Your task to perform on an android device: Clear the shopping cart on amazon.com. Search for "logitech g pro" on amazon.com, select the first entry, add it to the cart, then select checkout. Image 0: 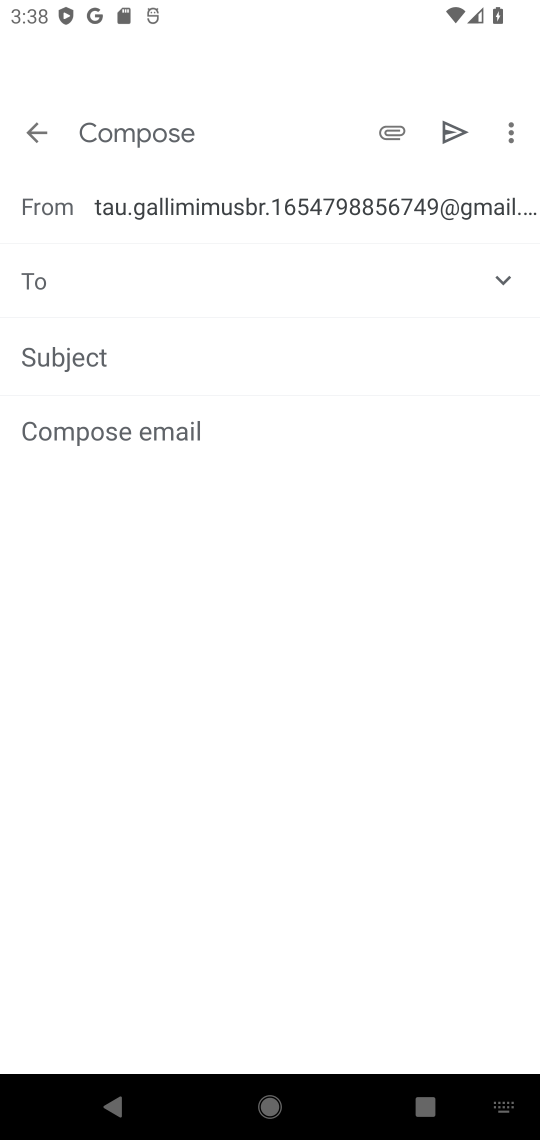
Step 0: press home button
Your task to perform on an android device: Clear the shopping cart on amazon.com. Search for "logitech g pro" on amazon.com, select the first entry, add it to the cart, then select checkout. Image 1: 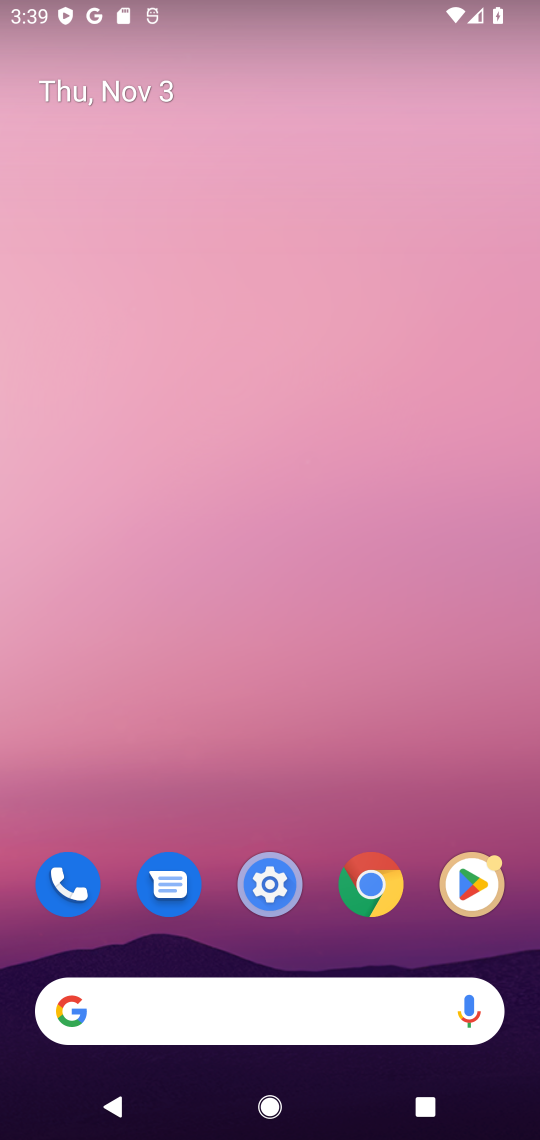
Step 1: click (109, 1009)
Your task to perform on an android device: Clear the shopping cart on amazon.com. Search for "logitech g pro" on amazon.com, select the first entry, add it to the cart, then select checkout. Image 2: 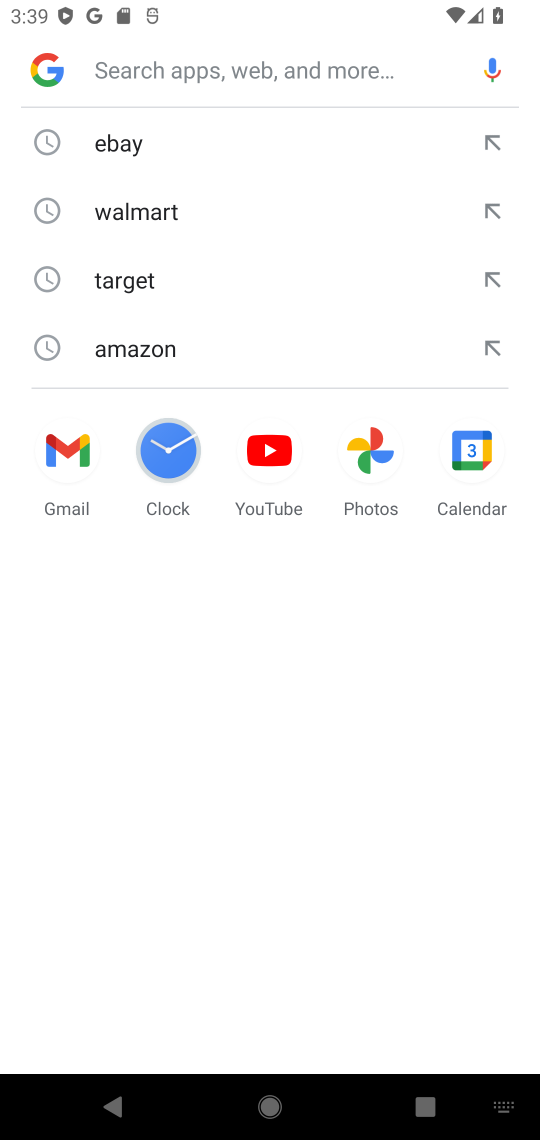
Step 2: type "amazon.com"
Your task to perform on an android device: Clear the shopping cart on amazon.com. Search for "logitech g pro" on amazon.com, select the first entry, add it to the cart, then select checkout. Image 3: 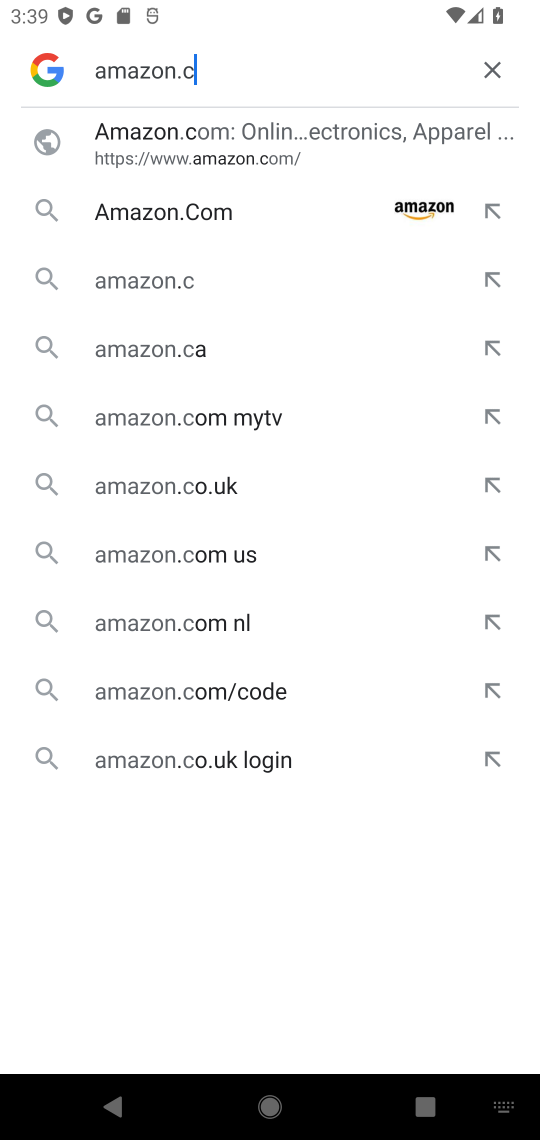
Step 3: press enter
Your task to perform on an android device: Clear the shopping cart on amazon.com. Search for "logitech g pro" on amazon.com, select the first entry, add it to the cart, then select checkout. Image 4: 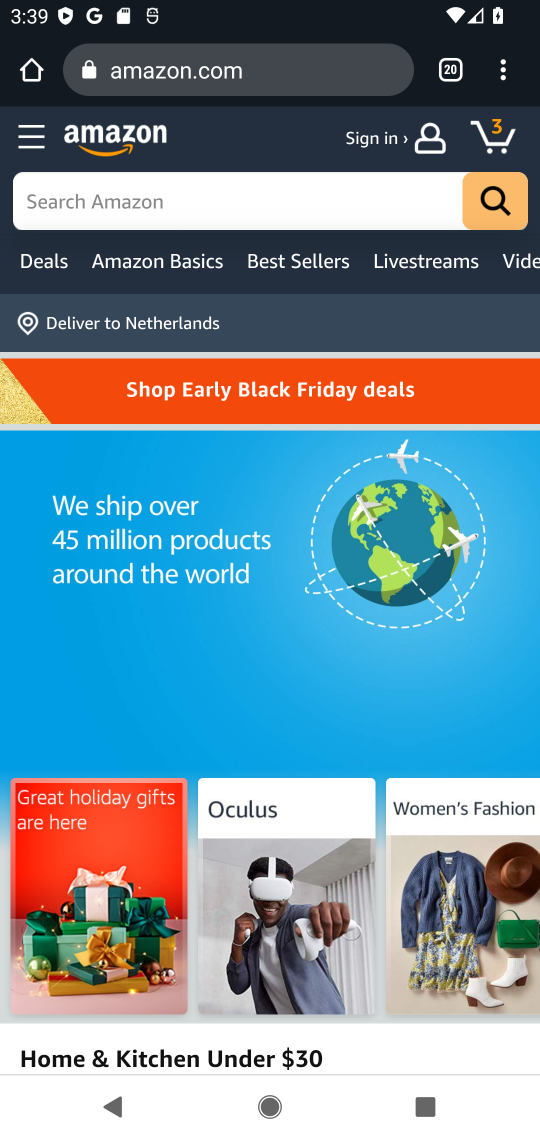
Step 4: click (485, 137)
Your task to perform on an android device: Clear the shopping cart on amazon.com. Search for "logitech g pro" on amazon.com, select the first entry, add it to the cart, then select checkout. Image 5: 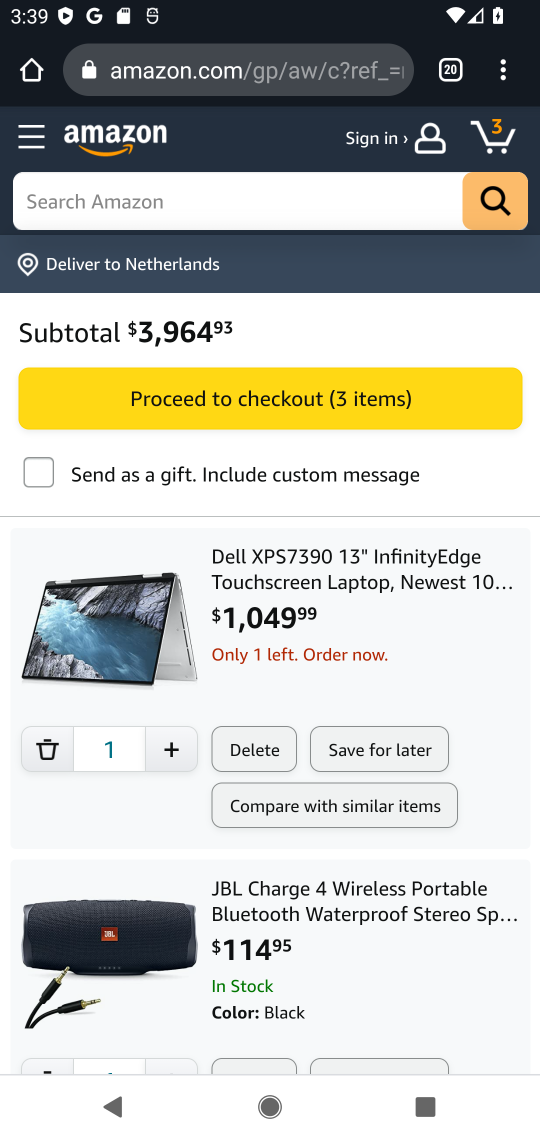
Step 5: click (39, 755)
Your task to perform on an android device: Clear the shopping cart on amazon.com. Search for "logitech g pro" on amazon.com, select the first entry, add it to the cart, then select checkout. Image 6: 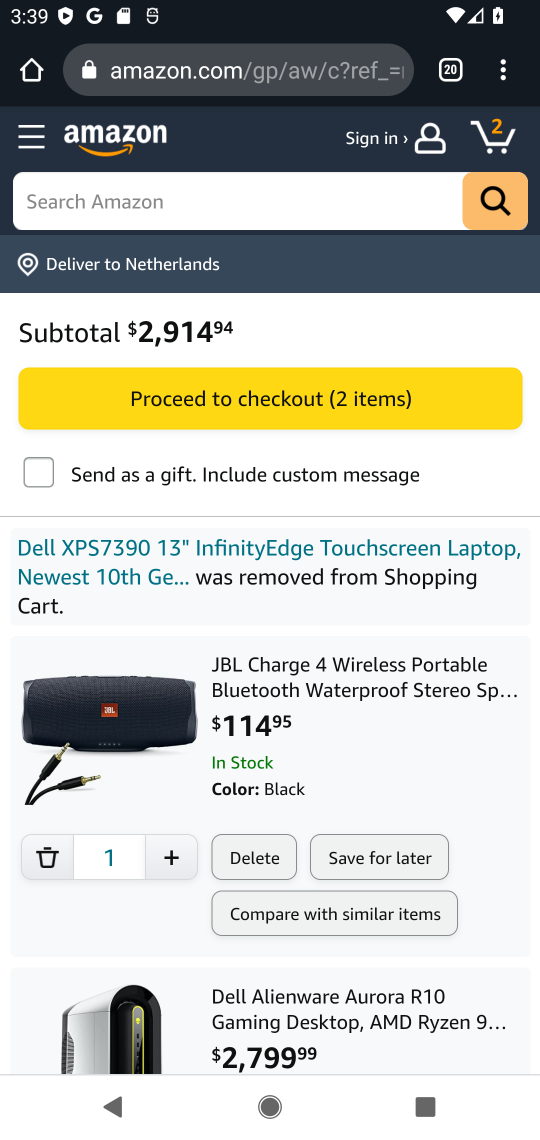
Step 6: click (44, 863)
Your task to perform on an android device: Clear the shopping cart on amazon.com. Search for "logitech g pro" on amazon.com, select the first entry, add it to the cart, then select checkout. Image 7: 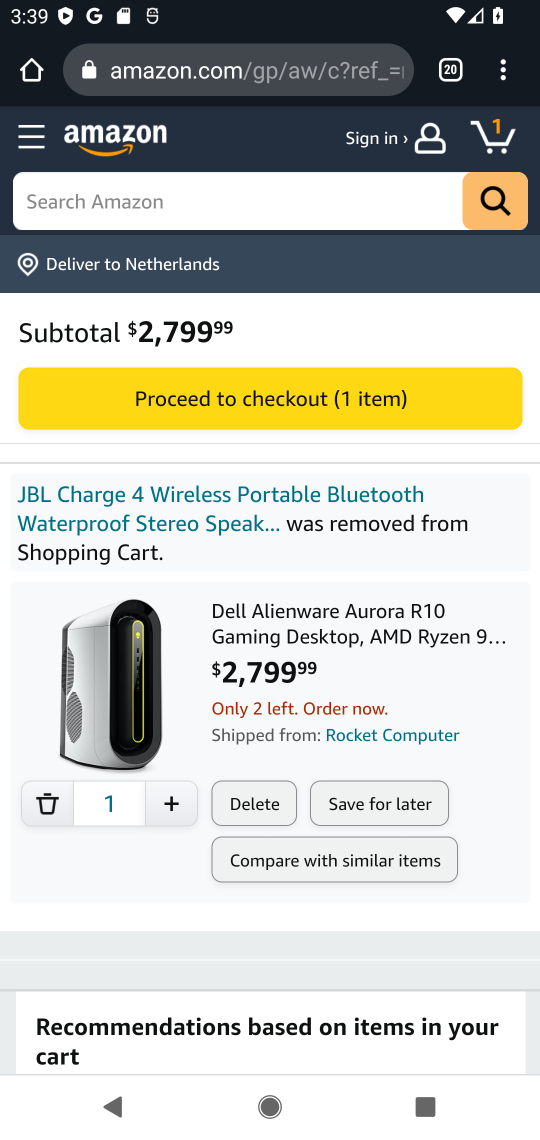
Step 7: click (46, 803)
Your task to perform on an android device: Clear the shopping cart on amazon.com. Search for "logitech g pro" on amazon.com, select the first entry, add it to the cart, then select checkout. Image 8: 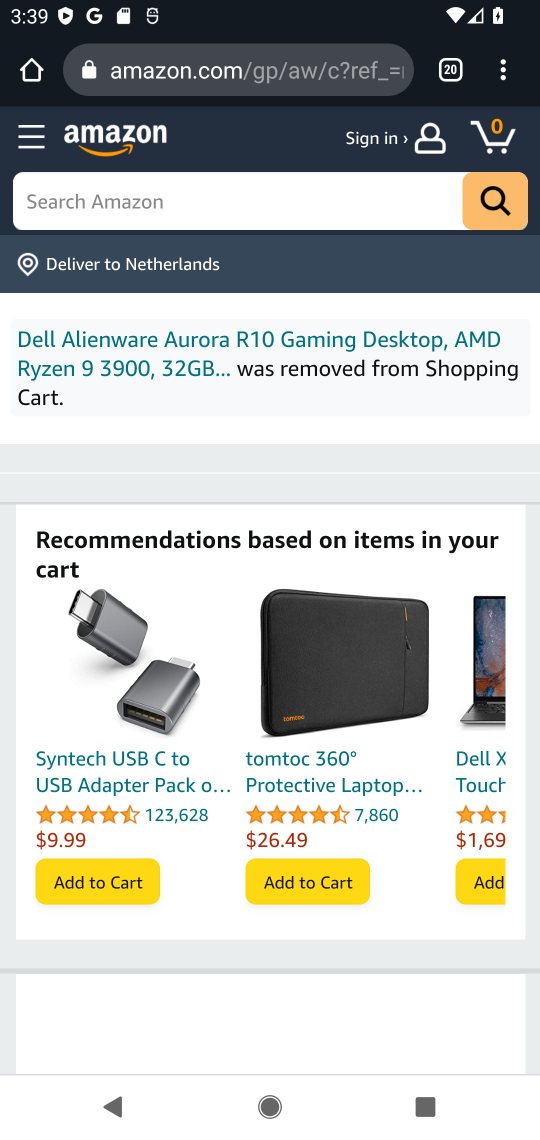
Step 8: click (169, 193)
Your task to perform on an android device: Clear the shopping cart on amazon.com. Search for "logitech g pro" on amazon.com, select the first entry, add it to the cart, then select checkout. Image 9: 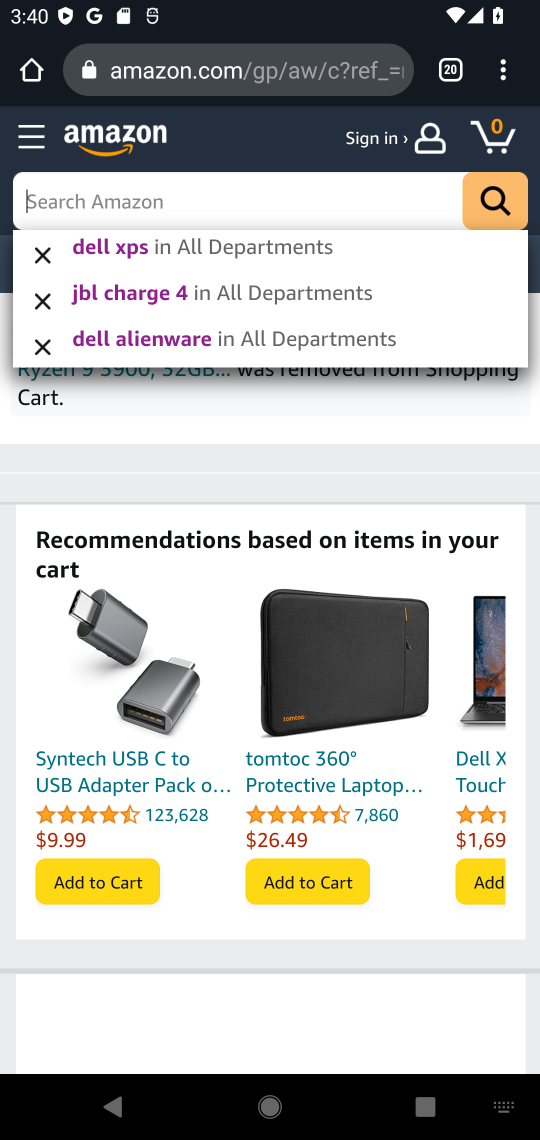
Step 9: type "logitech g pro"
Your task to perform on an android device: Clear the shopping cart on amazon.com. Search for "logitech g pro" on amazon.com, select the first entry, add it to the cart, then select checkout. Image 10: 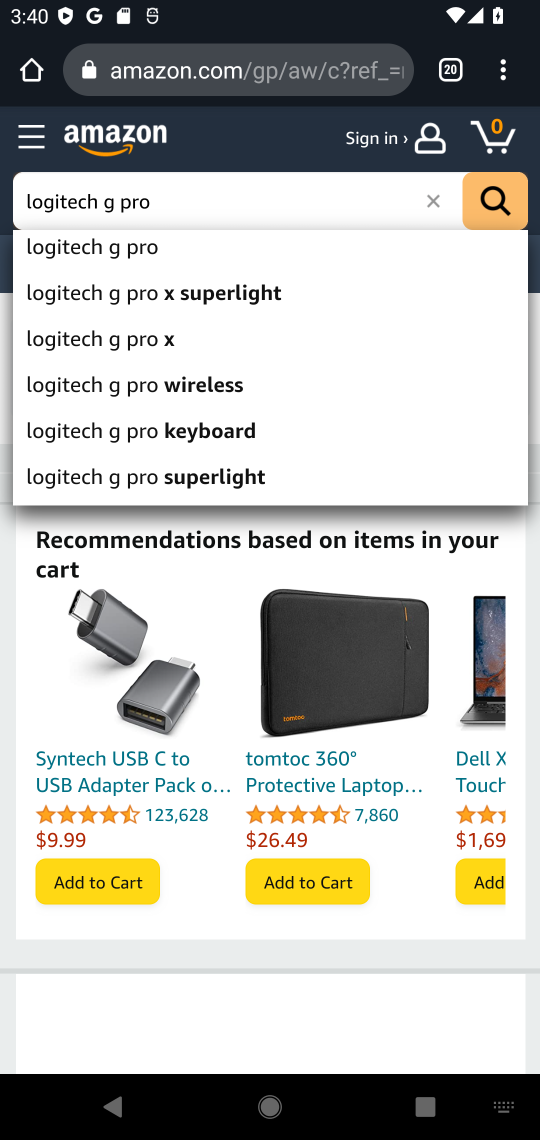
Step 10: click (493, 197)
Your task to perform on an android device: Clear the shopping cart on amazon.com. Search for "logitech g pro" on amazon.com, select the first entry, add it to the cart, then select checkout. Image 11: 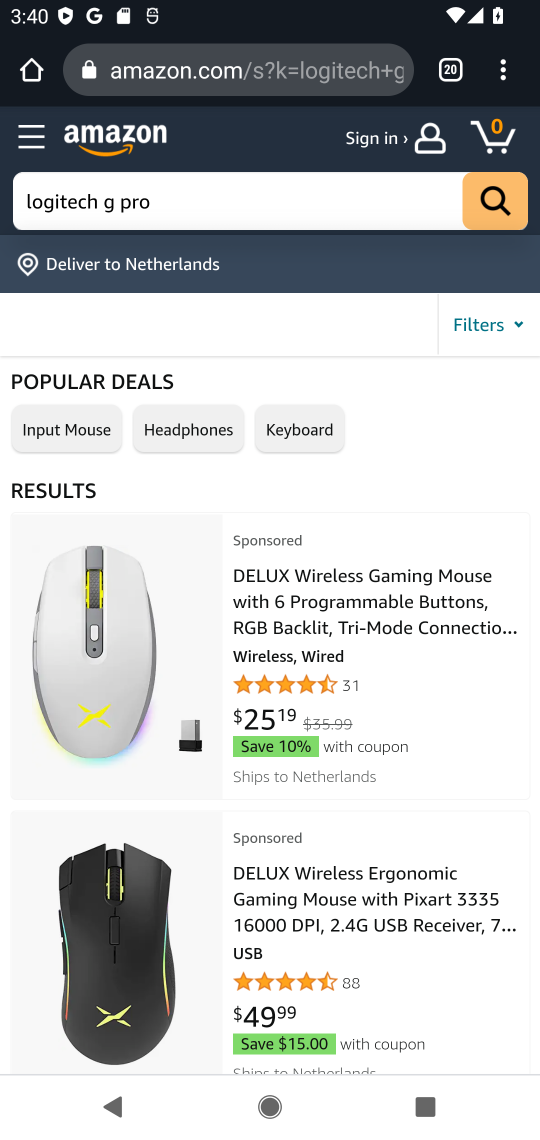
Step 11: drag from (374, 844) to (385, 608)
Your task to perform on an android device: Clear the shopping cart on amazon.com. Search for "logitech g pro" on amazon.com, select the first entry, add it to the cart, then select checkout. Image 12: 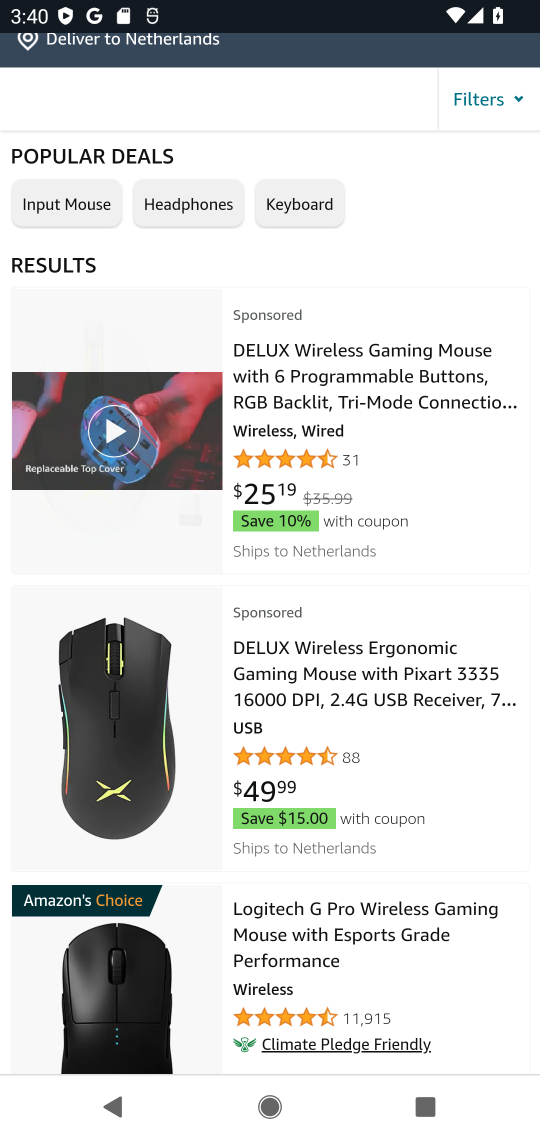
Step 12: drag from (354, 932) to (415, 556)
Your task to perform on an android device: Clear the shopping cart on amazon.com. Search for "logitech g pro" on amazon.com, select the first entry, add it to the cart, then select checkout. Image 13: 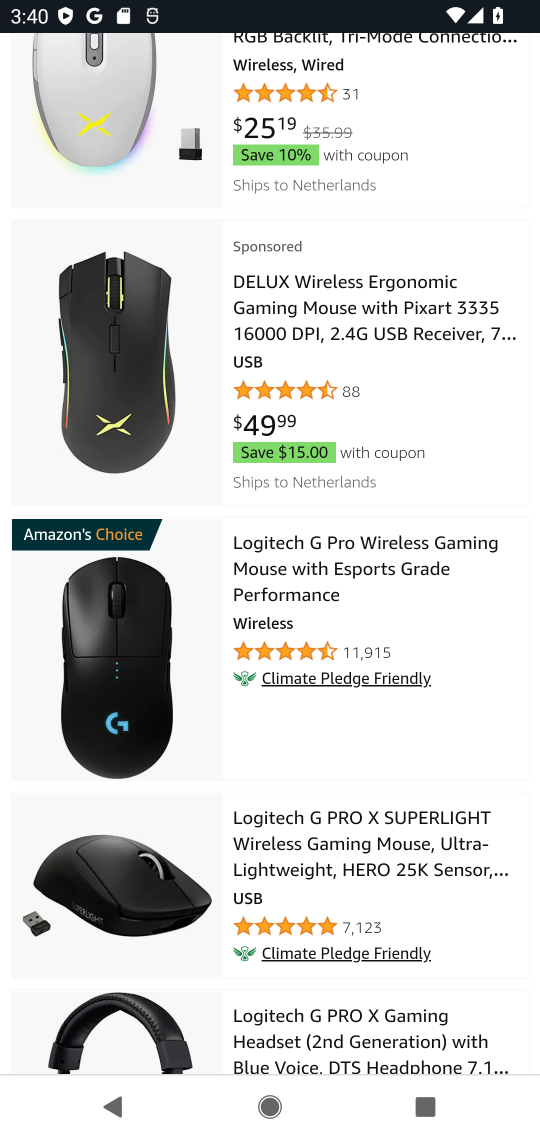
Step 13: click (284, 570)
Your task to perform on an android device: Clear the shopping cart on amazon.com. Search for "logitech g pro" on amazon.com, select the first entry, add it to the cart, then select checkout. Image 14: 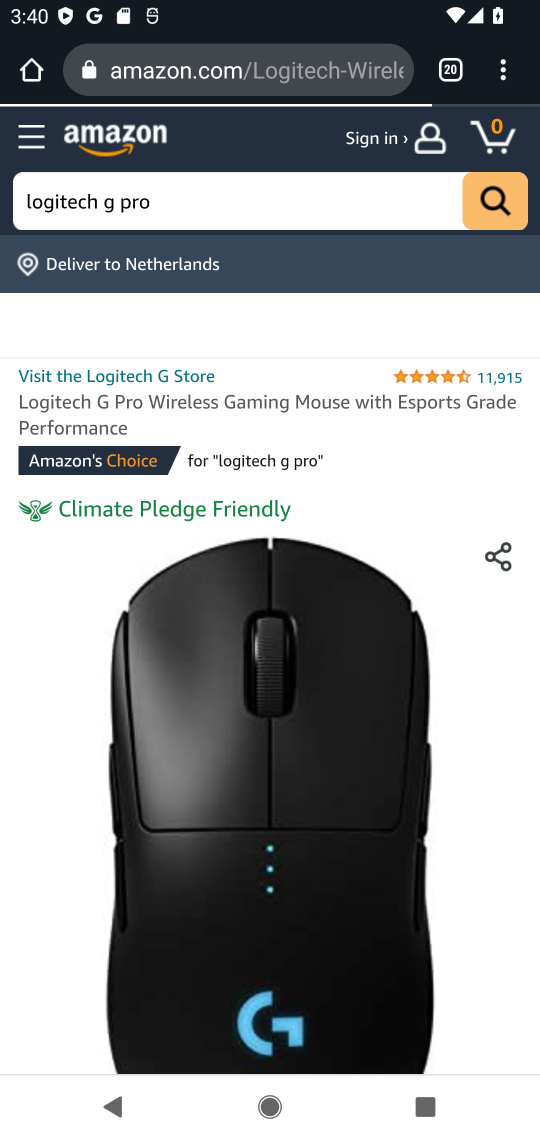
Step 14: drag from (411, 775) to (392, 482)
Your task to perform on an android device: Clear the shopping cart on amazon.com. Search for "logitech g pro" on amazon.com, select the first entry, add it to the cart, then select checkout. Image 15: 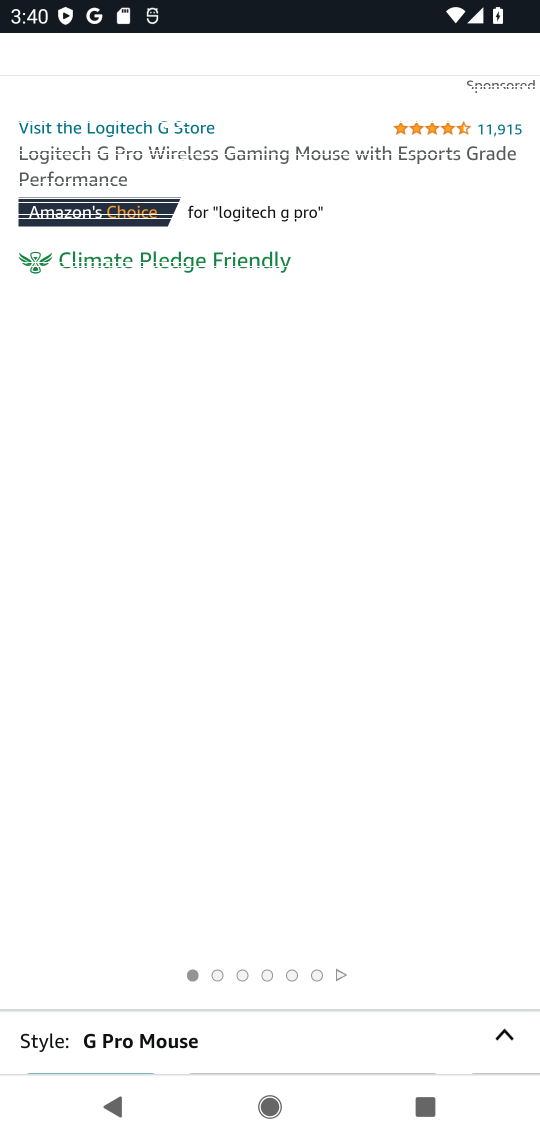
Step 15: drag from (407, 863) to (407, 448)
Your task to perform on an android device: Clear the shopping cart on amazon.com. Search for "logitech g pro" on amazon.com, select the first entry, add it to the cart, then select checkout. Image 16: 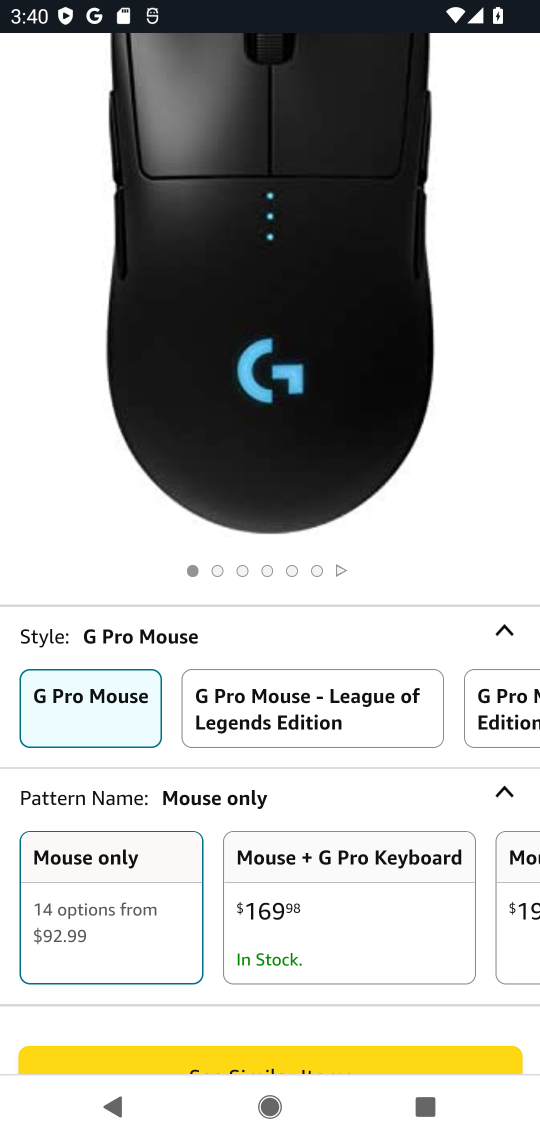
Step 16: drag from (346, 909) to (417, 440)
Your task to perform on an android device: Clear the shopping cart on amazon.com. Search for "logitech g pro" on amazon.com, select the first entry, add it to the cart, then select checkout. Image 17: 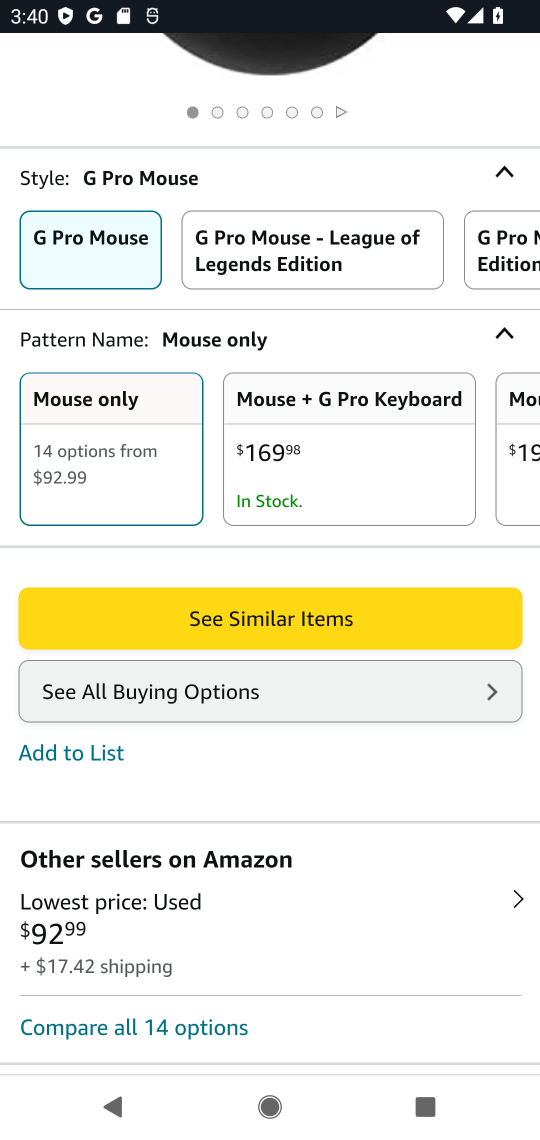
Step 17: click (44, 748)
Your task to perform on an android device: Clear the shopping cart on amazon.com. Search for "logitech g pro" on amazon.com, select the first entry, add it to the cart, then select checkout. Image 18: 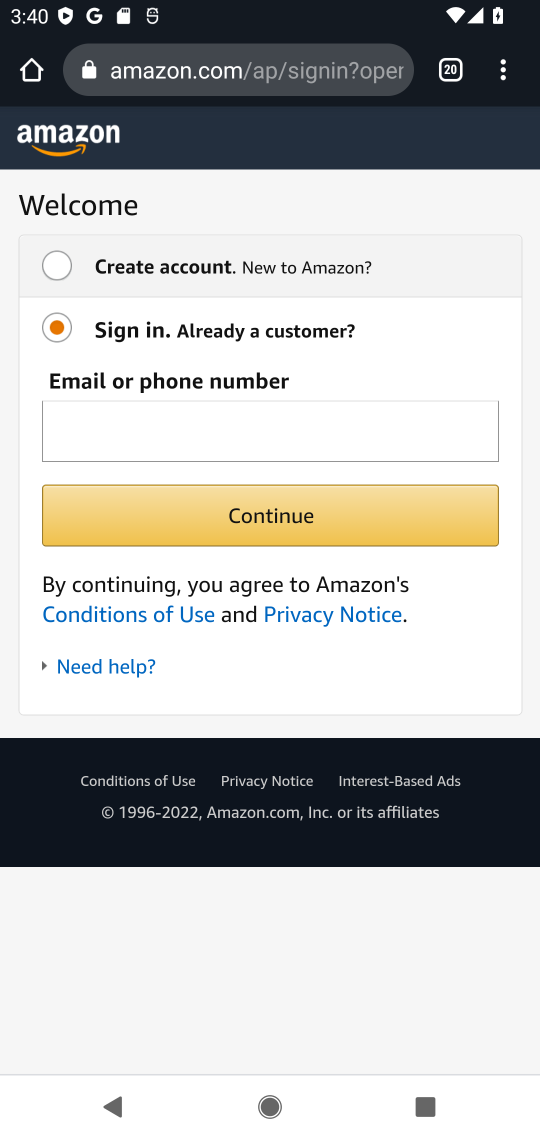
Step 18: press back button
Your task to perform on an android device: Clear the shopping cart on amazon.com. Search for "logitech g pro" on amazon.com, select the first entry, add it to the cart, then select checkout. Image 19: 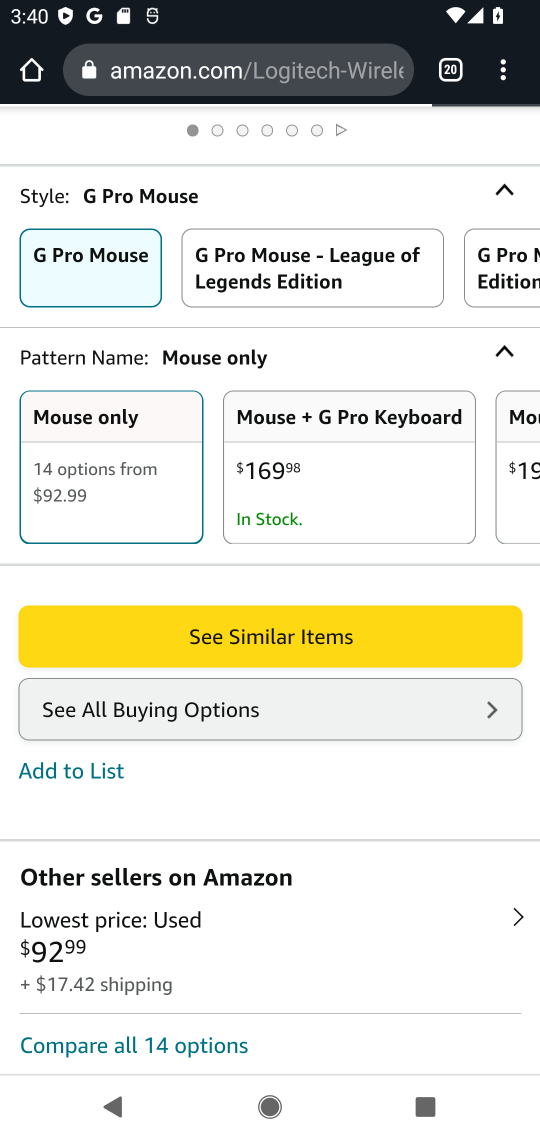
Step 19: press back button
Your task to perform on an android device: Clear the shopping cart on amazon.com. Search for "logitech g pro" on amazon.com, select the first entry, add it to the cart, then select checkout. Image 20: 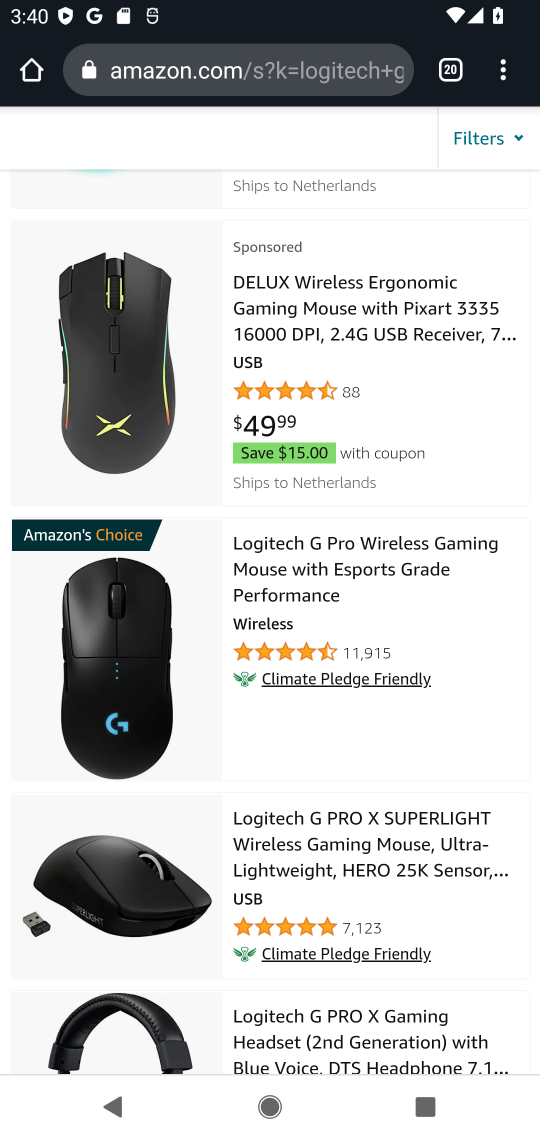
Step 20: drag from (367, 903) to (423, 478)
Your task to perform on an android device: Clear the shopping cart on amazon.com. Search for "logitech g pro" on amazon.com, select the first entry, add it to the cart, then select checkout. Image 21: 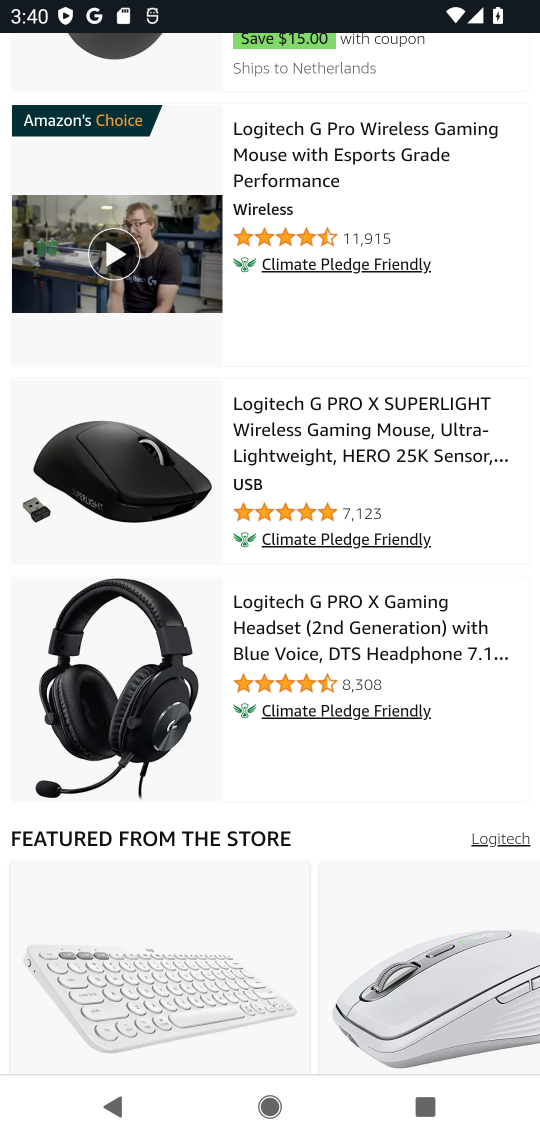
Step 21: click (353, 437)
Your task to perform on an android device: Clear the shopping cart on amazon.com. Search for "logitech g pro" on amazon.com, select the first entry, add it to the cart, then select checkout. Image 22: 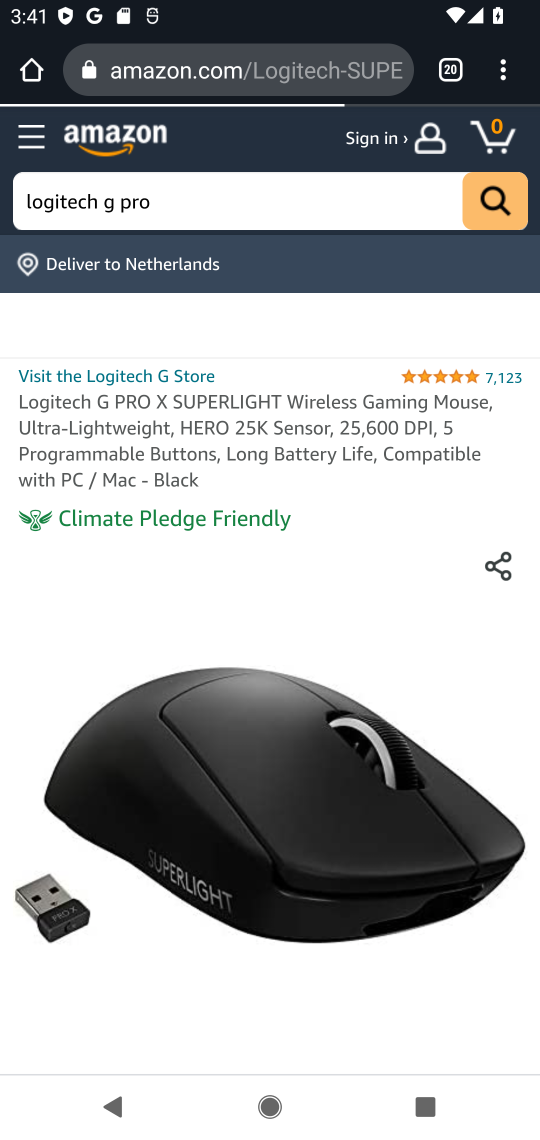
Step 22: task complete